Your task to perform on an android device: Open my contact list Image 0: 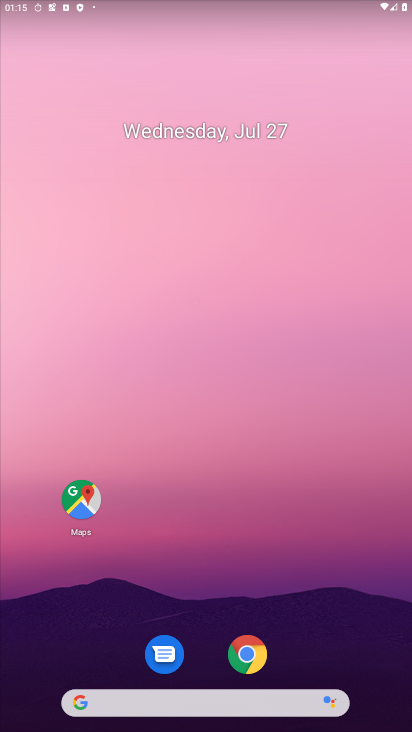
Step 0: drag from (297, 687) to (373, 167)
Your task to perform on an android device: Open my contact list Image 1: 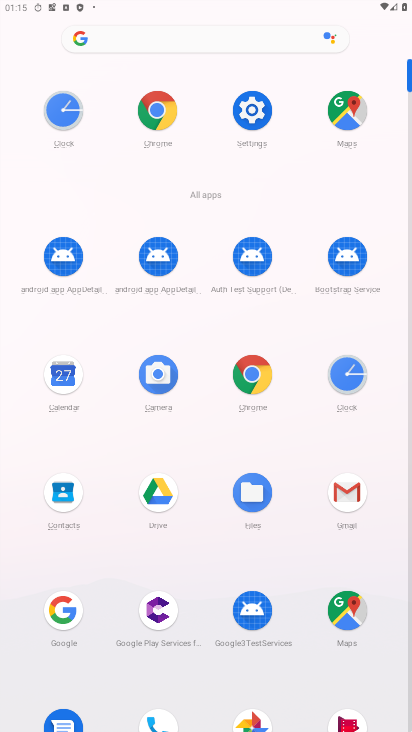
Step 1: click (57, 497)
Your task to perform on an android device: Open my contact list Image 2: 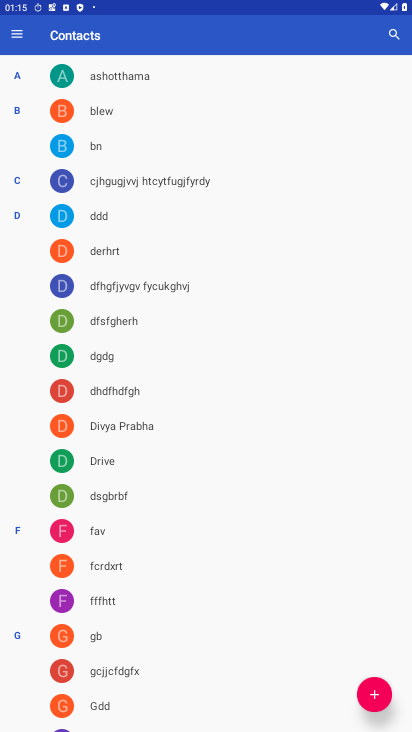
Step 2: task complete